Your task to perform on an android device: turn off smart reply in the gmail app Image 0: 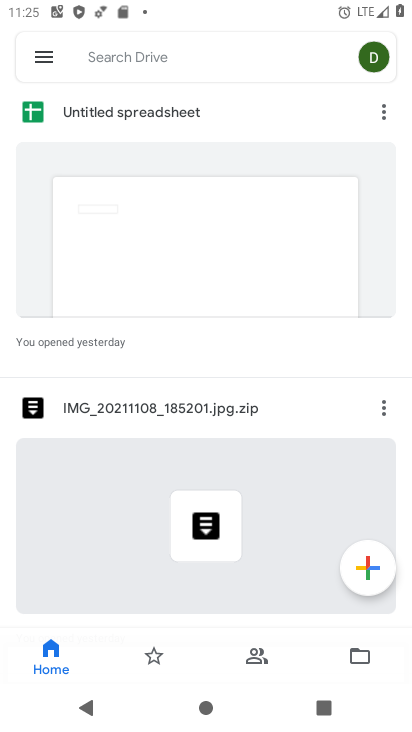
Step 0: press home button
Your task to perform on an android device: turn off smart reply in the gmail app Image 1: 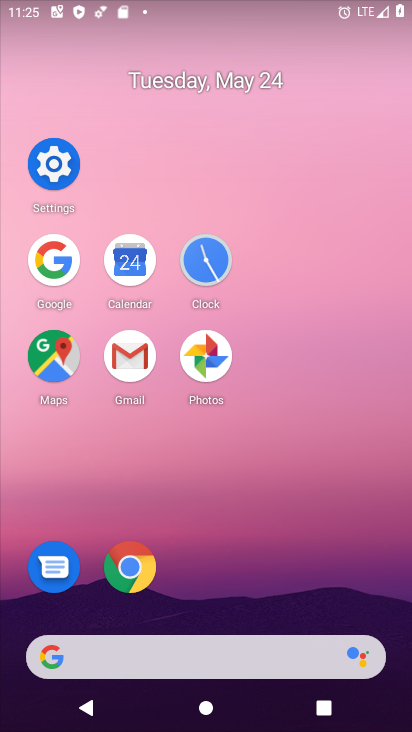
Step 1: click (122, 350)
Your task to perform on an android device: turn off smart reply in the gmail app Image 2: 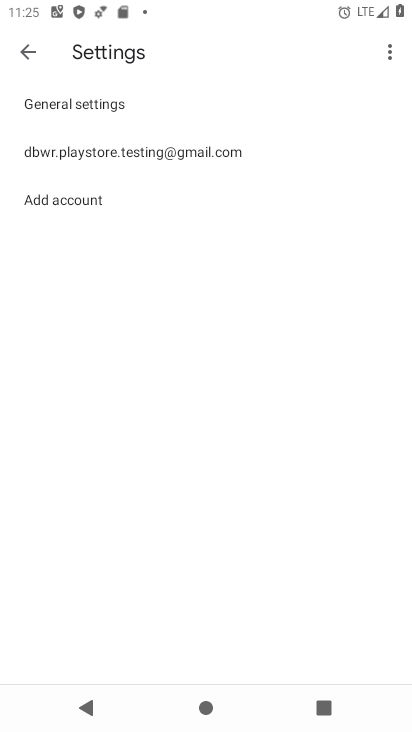
Step 2: click (48, 150)
Your task to perform on an android device: turn off smart reply in the gmail app Image 3: 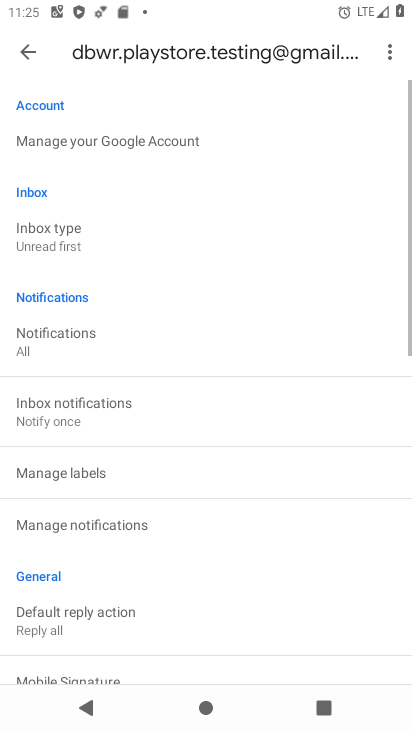
Step 3: drag from (206, 499) to (281, 154)
Your task to perform on an android device: turn off smart reply in the gmail app Image 4: 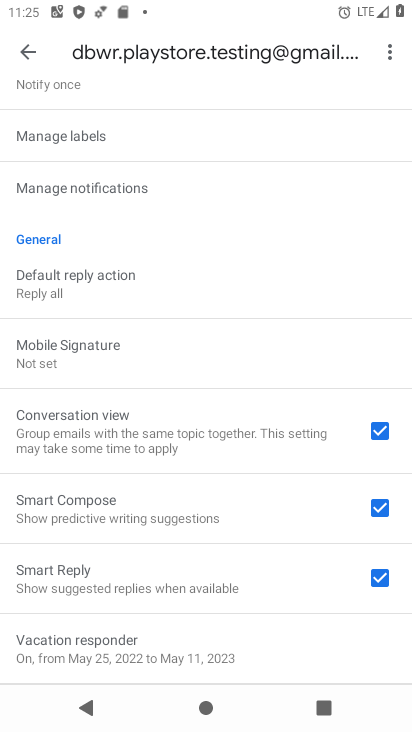
Step 4: click (385, 573)
Your task to perform on an android device: turn off smart reply in the gmail app Image 5: 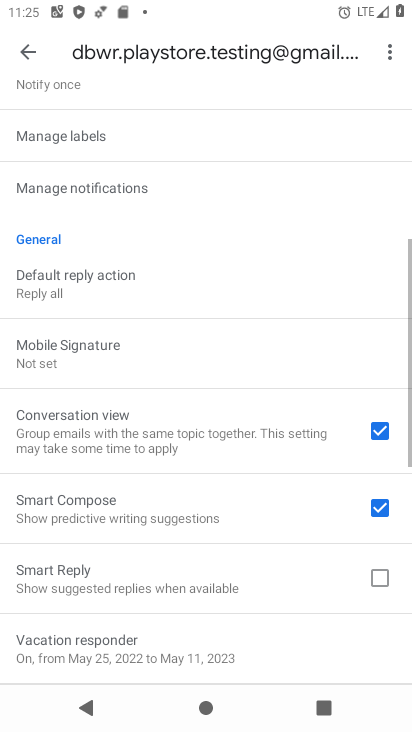
Step 5: task complete